Your task to perform on an android device: Open Google Chrome and click the shortcut for Amazon.com Image 0: 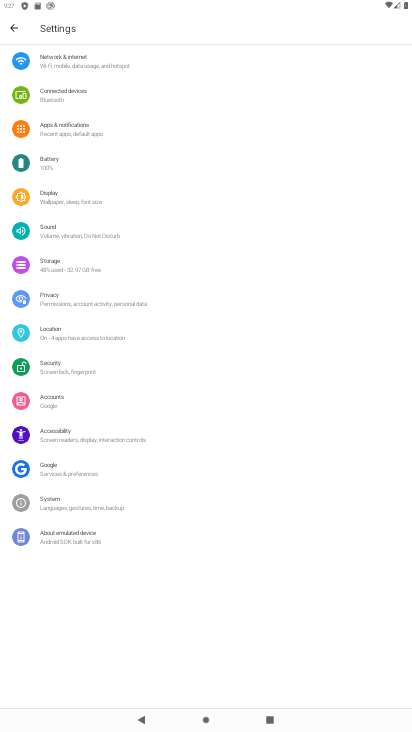
Step 0: press home button
Your task to perform on an android device: Open Google Chrome and click the shortcut for Amazon.com Image 1: 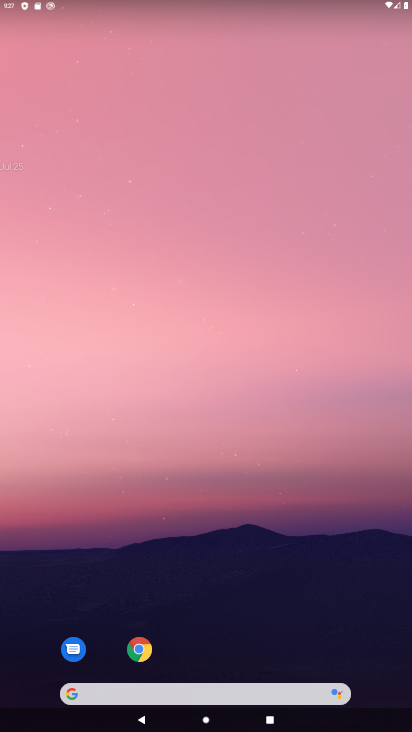
Step 1: click (150, 653)
Your task to perform on an android device: Open Google Chrome and click the shortcut for Amazon.com Image 2: 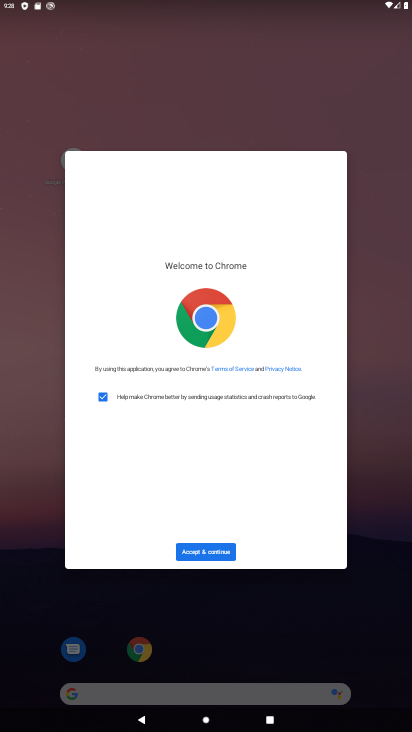
Step 2: click (217, 540)
Your task to perform on an android device: Open Google Chrome and click the shortcut for Amazon.com Image 3: 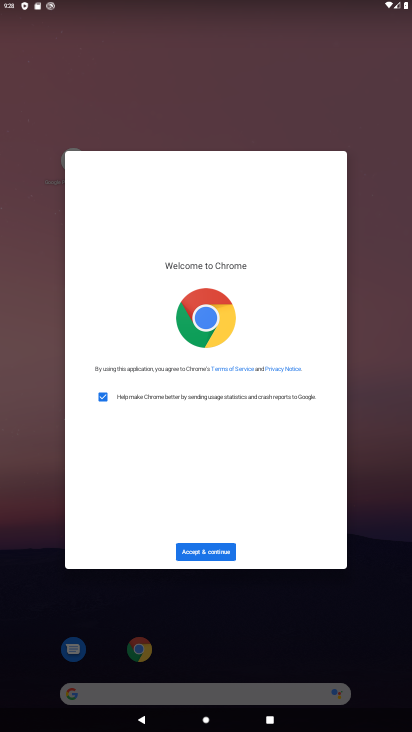
Step 3: click (207, 557)
Your task to perform on an android device: Open Google Chrome and click the shortcut for Amazon.com Image 4: 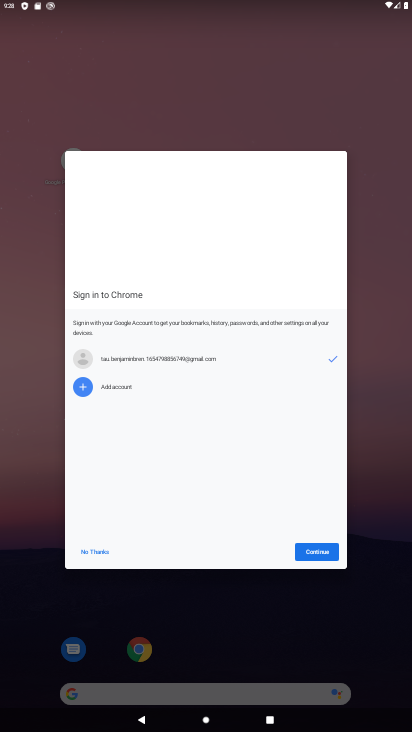
Step 4: click (313, 549)
Your task to perform on an android device: Open Google Chrome and click the shortcut for Amazon.com Image 5: 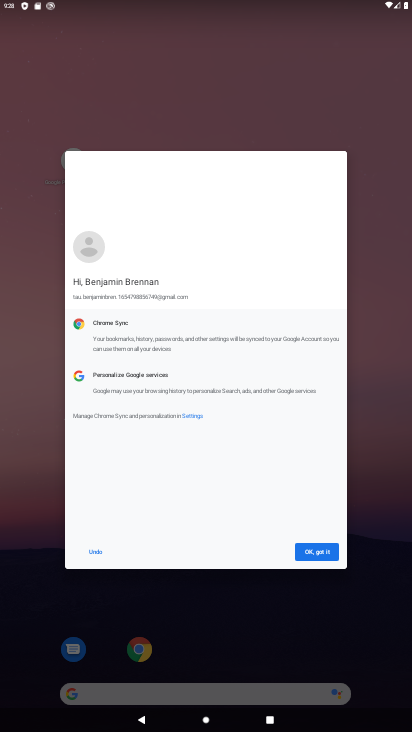
Step 5: click (318, 547)
Your task to perform on an android device: Open Google Chrome and click the shortcut for Amazon.com Image 6: 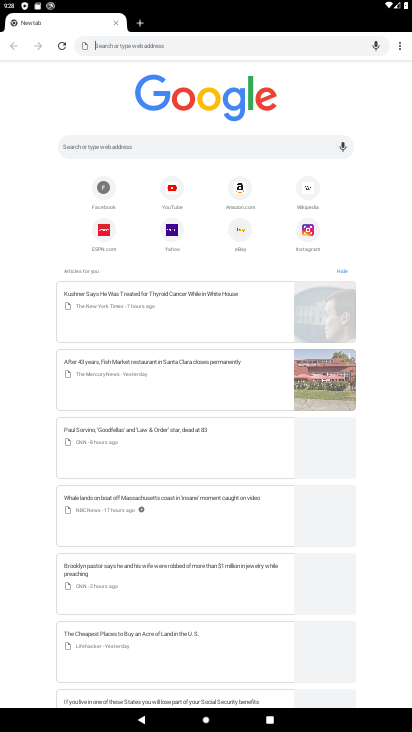
Step 6: click (237, 186)
Your task to perform on an android device: Open Google Chrome and click the shortcut for Amazon.com Image 7: 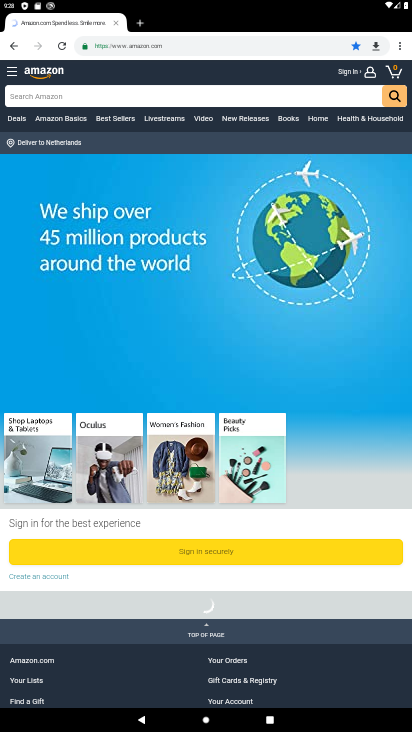
Step 7: task complete